Your task to perform on an android device: Toggle the flashlight Image 0: 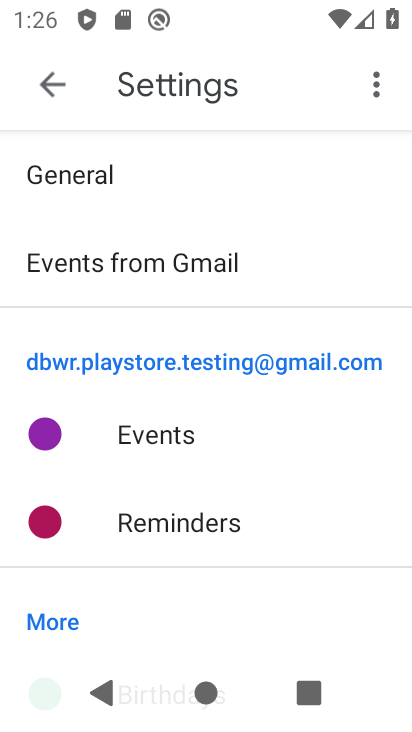
Step 0: press home button
Your task to perform on an android device: Toggle the flashlight Image 1: 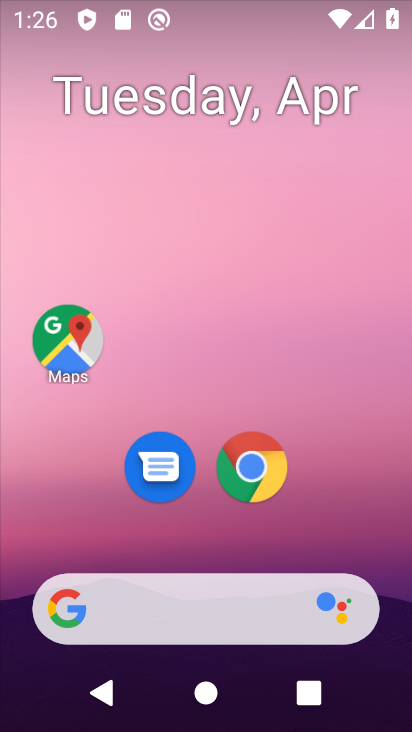
Step 1: drag from (274, 0) to (274, 364)
Your task to perform on an android device: Toggle the flashlight Image 2: 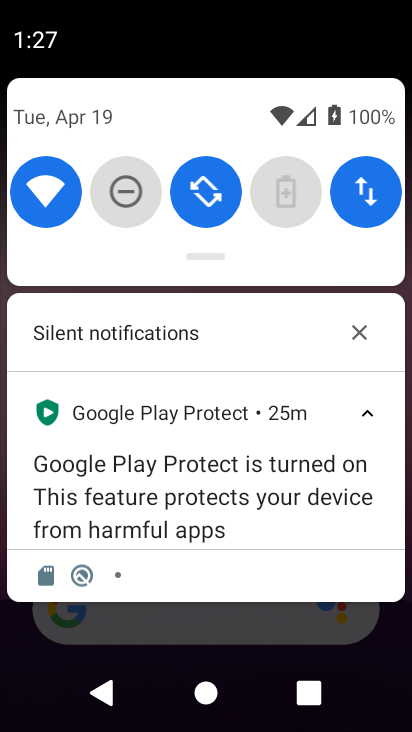
Step 2: drag from (241, 132) to (238, 409)
Your task to perform on an android device: Toggle the flashlight Image 3: 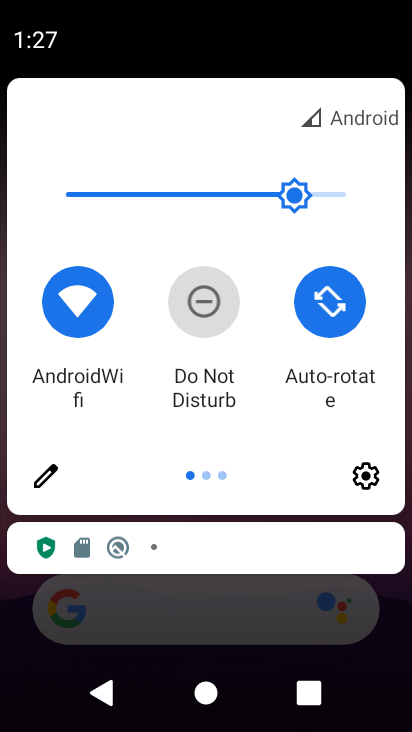
Step 3: click (41, 480)
Your task to perform on an android device: Toggle the flashlight Image 4: 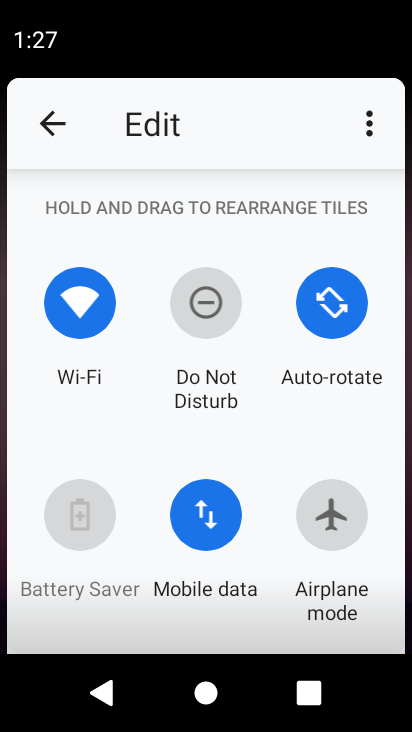
Step 4: task complete